Your task to perform on an android device: open a bookmark in the chrome app Image 0: 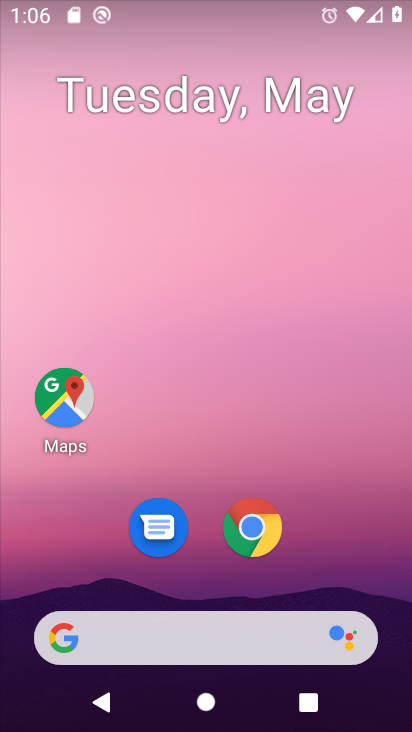
Step 0: click (246, 525)
Your task to perform on an android device: open a bookmark in the chrome app Image 1: 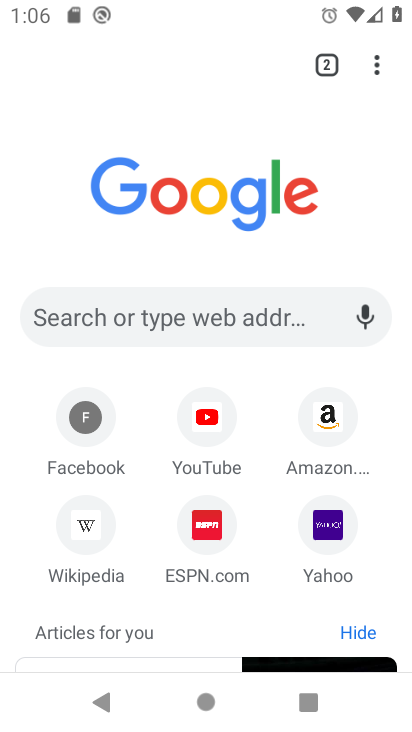
Step 1: click (374, 74)
Your task to perform on an android device: open a bookmark in the chrome app Image 2: 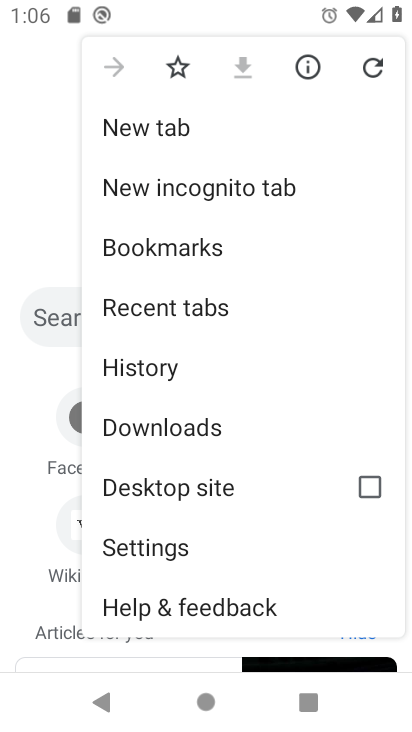
Step 2: click (199, 251)
Your task to perform on an android device: open a bookmark in the chrome app Image 3: 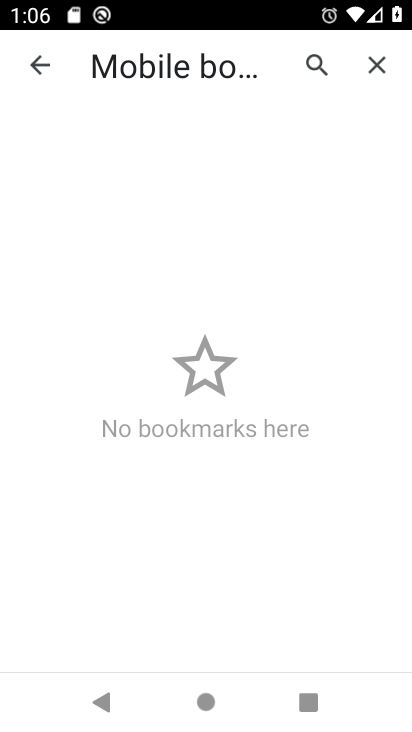
Step 3: task complete